Your task to perform on an android device: Check the weather Image 0: 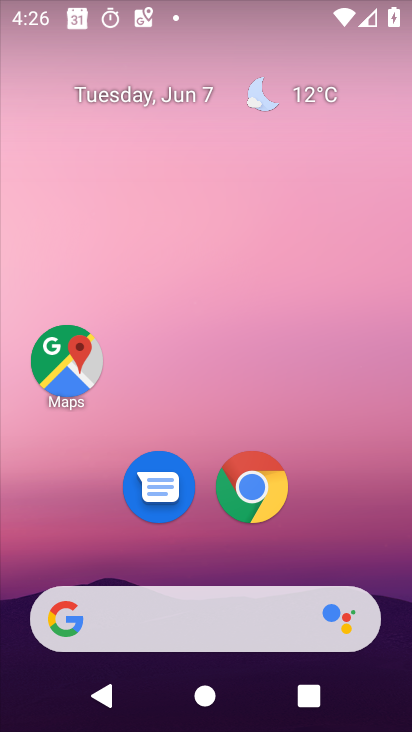
Step 0: click (273, 100)
Your task to perform on an android device: Check the weather Image 1: 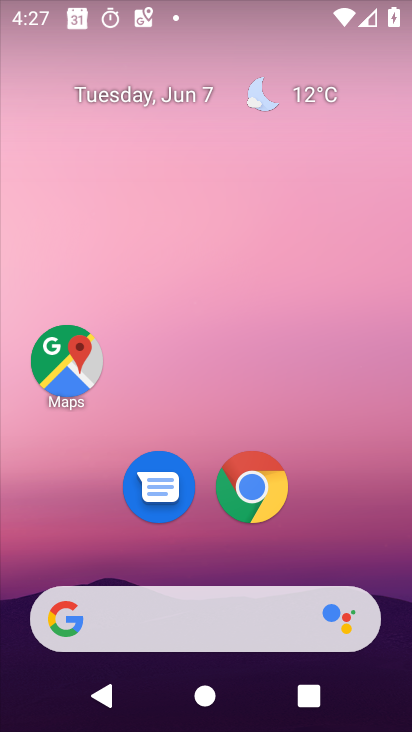
Step 1: click (264, 88)
Your task to perform on an android device: Check the weather Image 2: 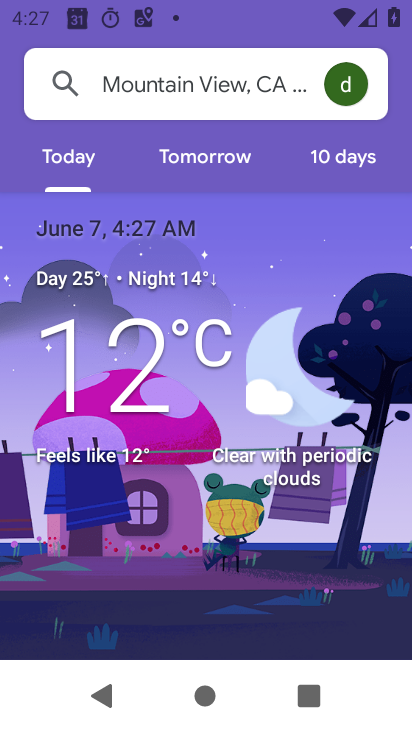
Step 2: task complete